Your task to perform on an android device: Open the phone app and click the voicemail tab. Image 0: 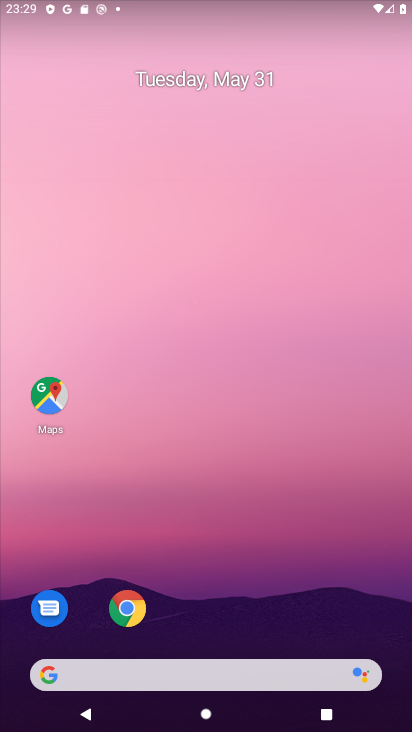
Step 0: click (129, 604)
Your task to perform on an android device: Open the phone app and click the voicemail tab. Image 1: 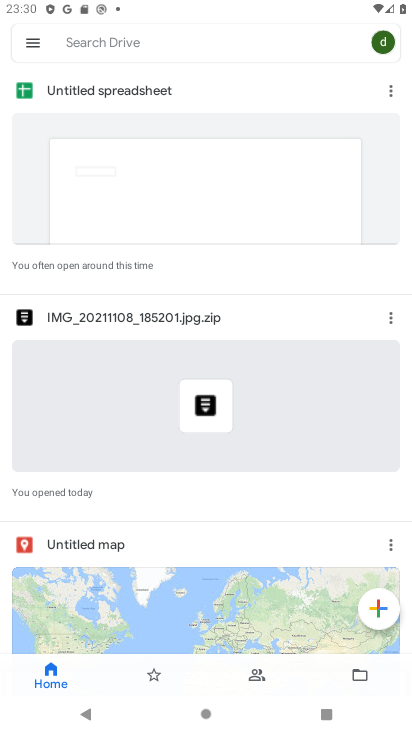
Step 1: press home button
Your task to perform on an android device: Open the phone app and click the voicemail tab. Image 2: 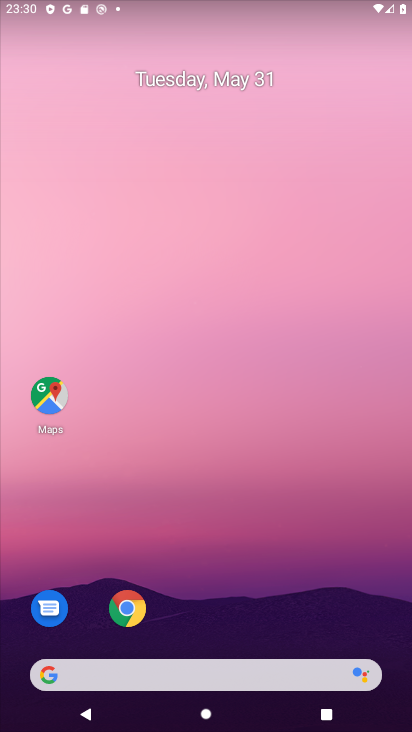
Step 2: drag from (265, 643) to (256, 60)
Your task to perform on an android device: Open the phone app and click the voicemail tab. Image 3: 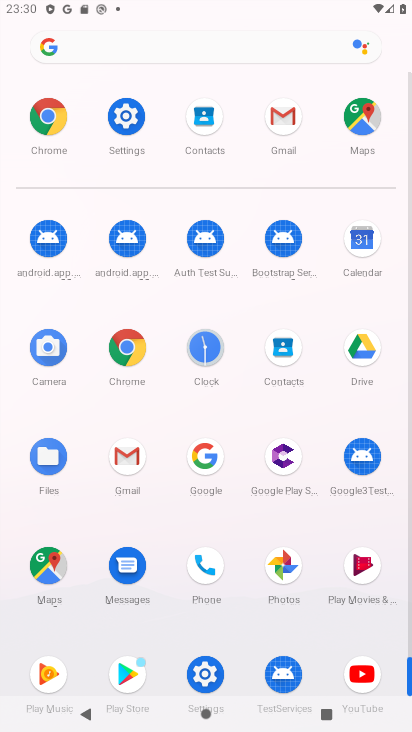
Step 3: click (219, 569)
Your task to perform on an android device: Open the phone app and click the voicemail tab. Image 4: 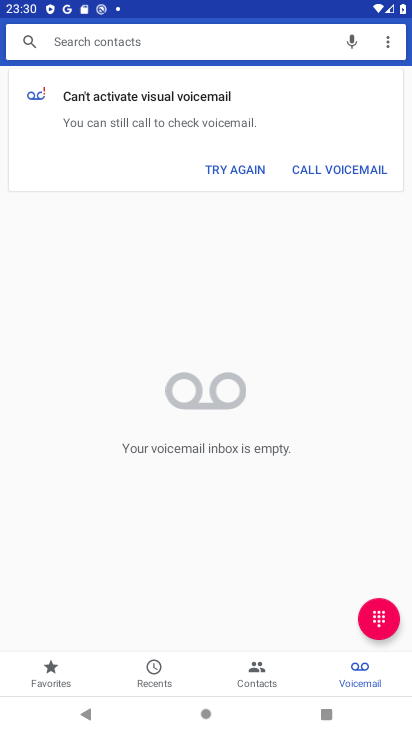
Step 4: click (350, 669)
Your task to perform on an android device: Open the phone app and click the voicemail tab. Image 5: 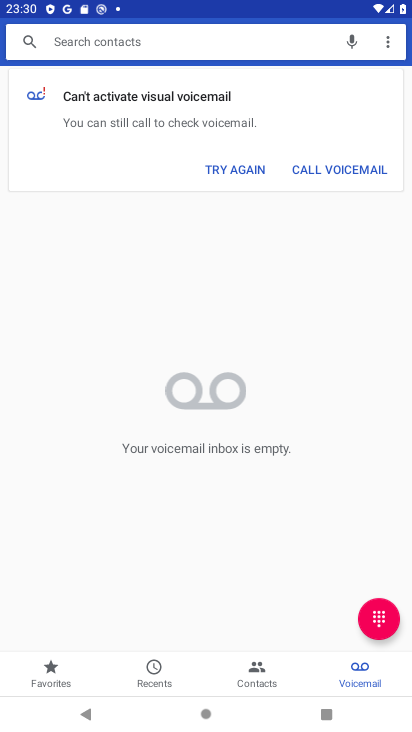
Step 5: task complete